Your task to perform on an android device: Open settings on Google Maps Image 0: 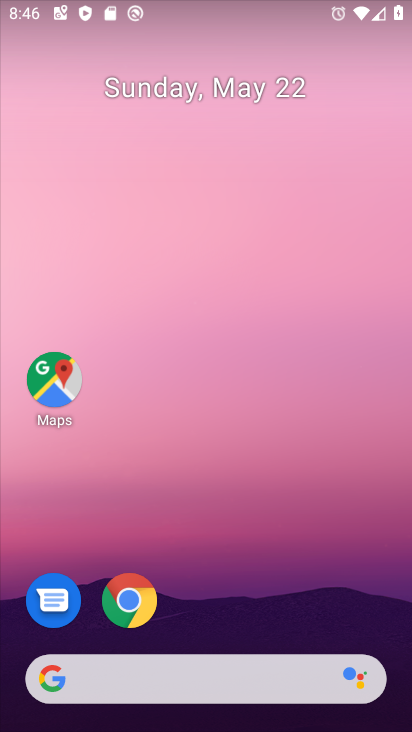
Step 0: click (61, 396)
Your task to perform on an android device: Open settings on Google Maps Image 1: 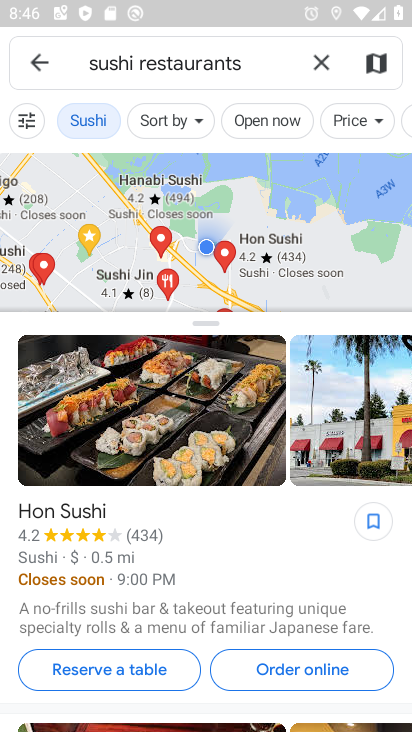
Step 1: click (39, 68)
Your task to perform on an android device: Open settings on Google Maps Image 2: 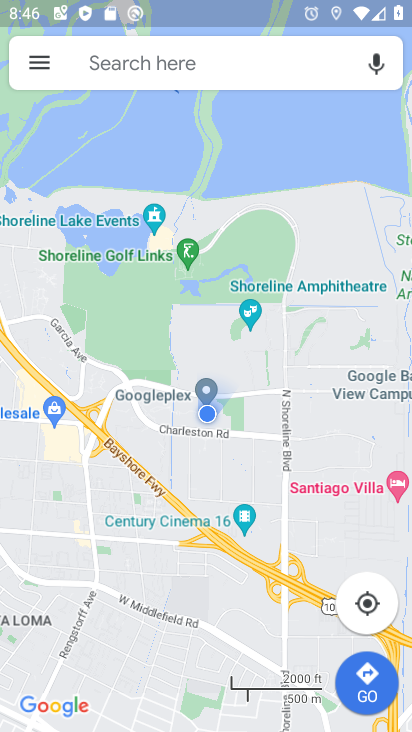
Step 2: click (39, 68)
Your task to perform on an android device: Open settings on Google Maps Image 3: 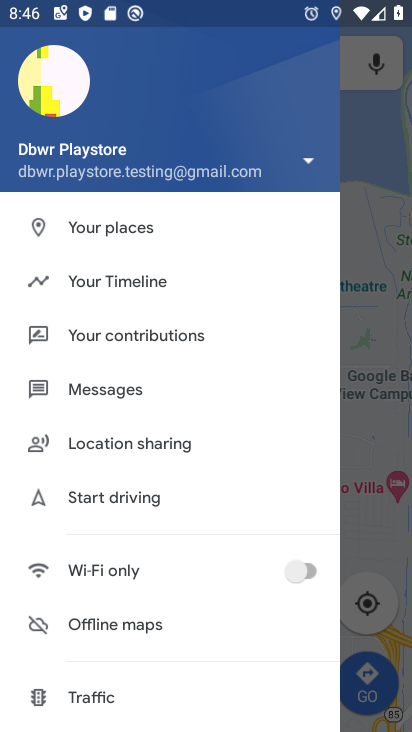
Step 3: drag from (176, 655) to (179, 427)
Your task to perform on an android device: Open settings on Google Maps Image 4: 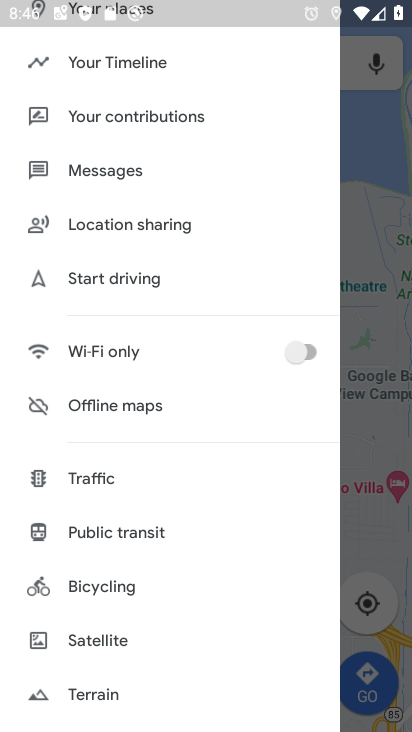
Step 4: drag from (143, 634) to (153, 413)
Your task to perform on an android device: Open settings on Google Maps Image 5: 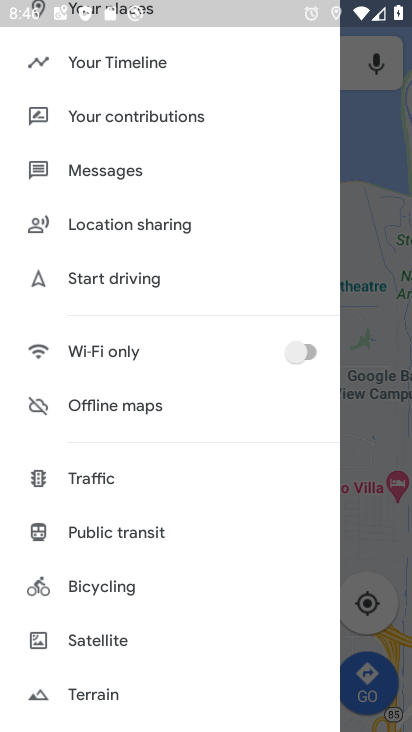
Step 5: drag from (105, 673) to (152, 469)
Your task to perform on an android device: Open settings on Google Maps Image 6: 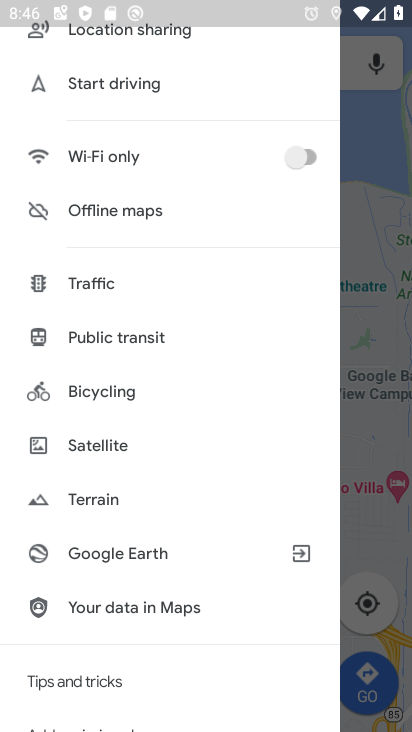
Step 6: drag from (149, 623) to (157, 352)
Your task to perform on an android device: Open settings on Google Maps Image 7: 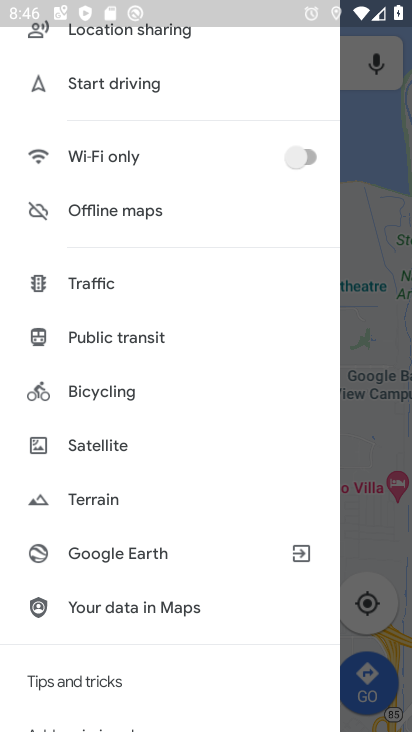
Step 7: drag from (158, 617) to (151, 284)
Your task to perform on an android device: Open settings on Google Maps Image 8: 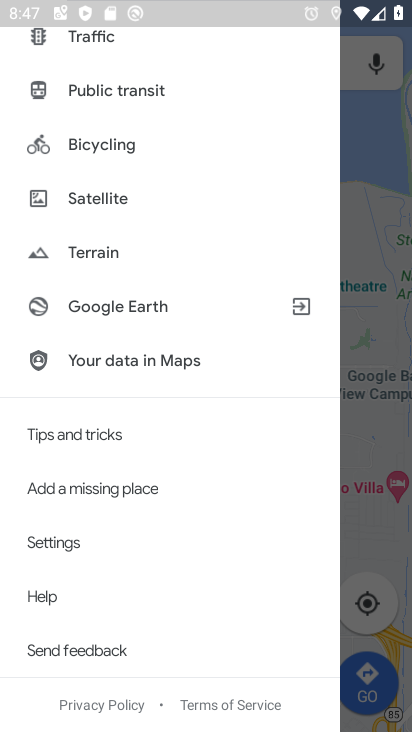
Step 8: click (61, 541)
Your task to perform on an android device: Open settings on Google Maps Image 9: 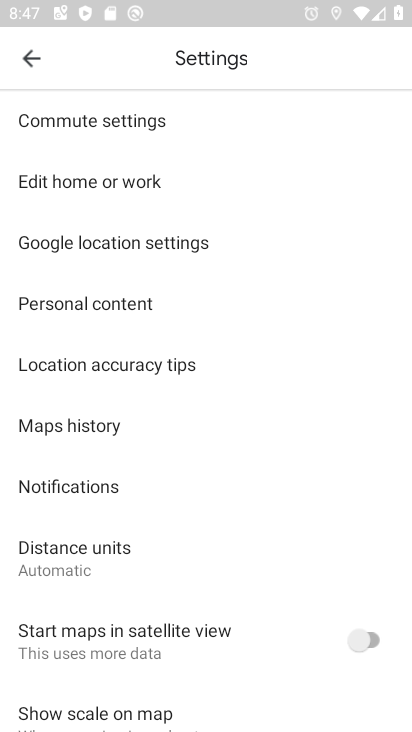
Step 9: task complete